Your task to perform on an android device: toggle notifications settings in the gmail app Image 0: 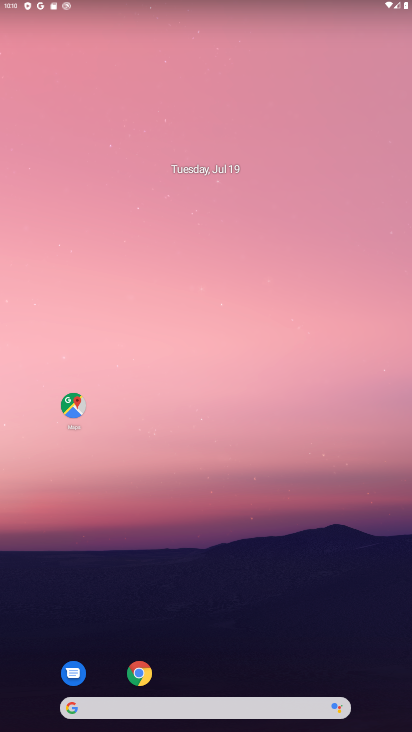
Step 0: drag from (313, 625) to (275, 102)
Your task to perform on an android device: toggle notifications settings in the gmail app Image 1: 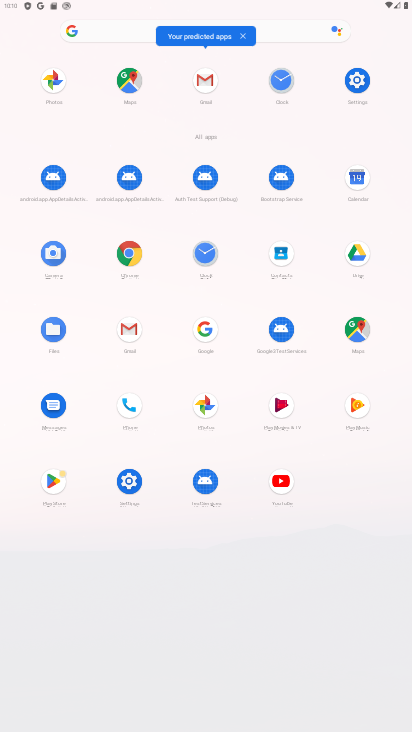
Step 1: click (210, 80)
Your task to perform on an android device: toggle notifications settings in the gmail app Image 2: 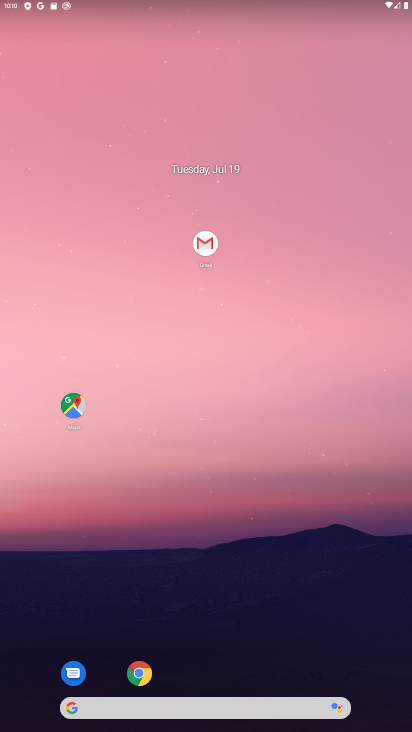
Step 2: click (210, 237)
Your task to perform on an android device: toggle notifications settings in the gmail app Image 3: 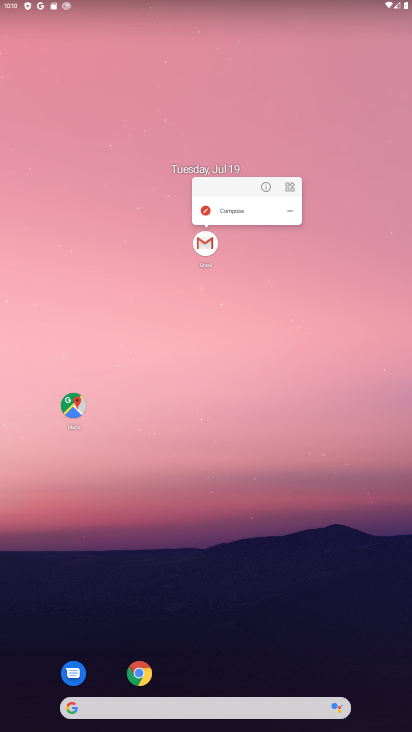
Step 3: click (268, 188)
Your task to perform on an android device: toggle notifications settings in the gmail app Image 4: 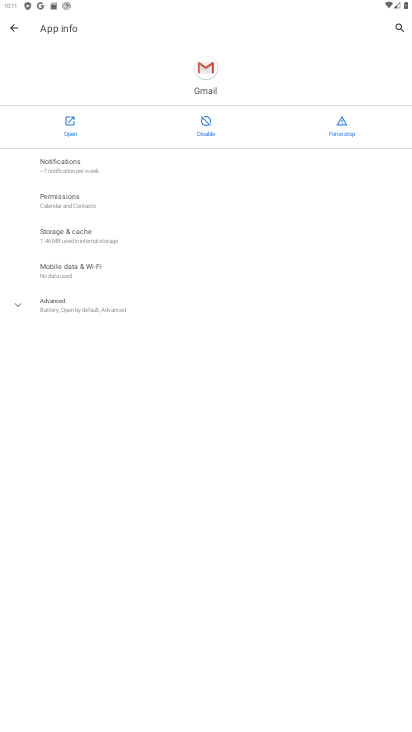
Step 4: click (64, 161)
Your task to perform on an android device: toggle notifications settings in the gmail app Image 5: 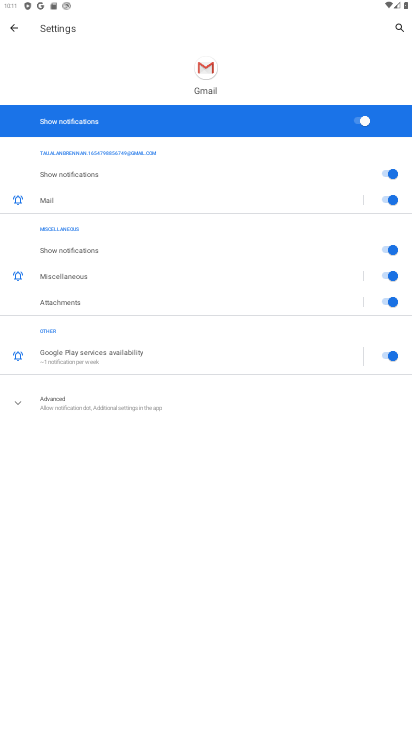
Step 5: click (362, 121)
Your task to perform on an android device: toggle notifications settings in the gmail app Image 6: 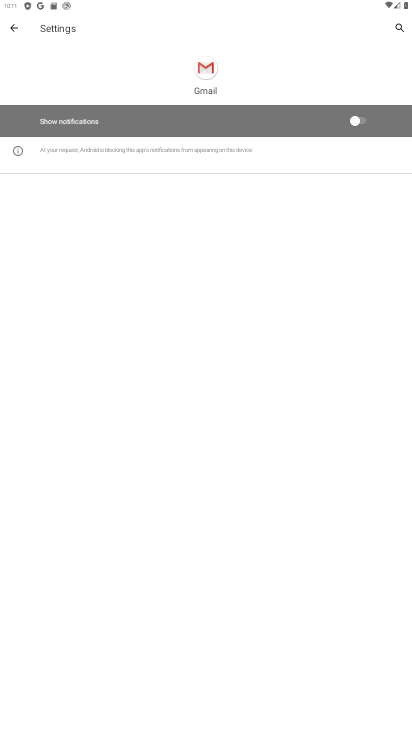
Step 6: task complete